Your task to perform on an android device: change the clock display to show seconds Image 0: 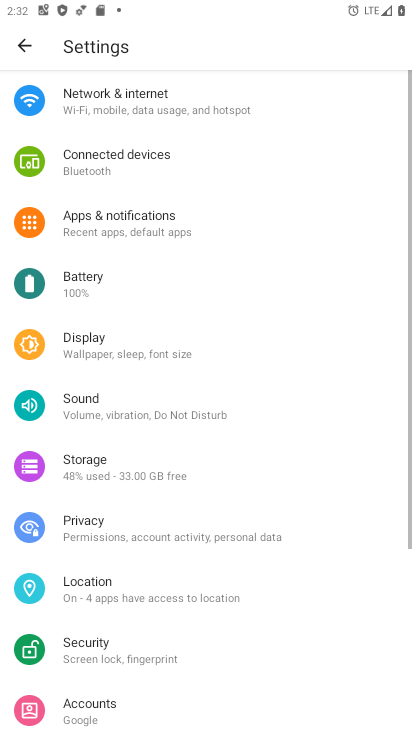
Step 0: press home button
Your task to perform on an android device: change the clock display to show seconds Image 1: 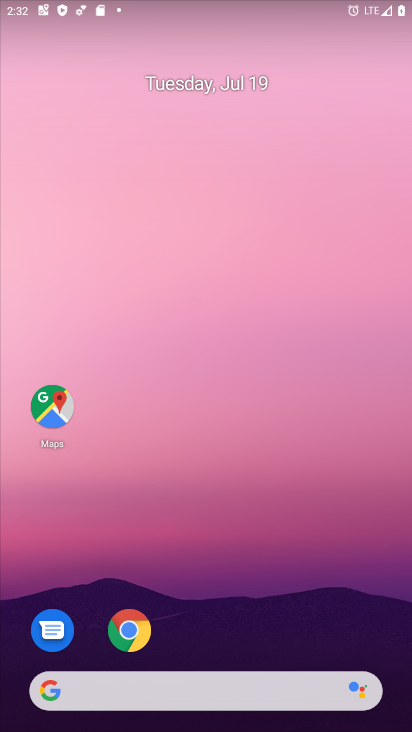
Step 1: drag from (204, 642) to (186, 71)
Your task to perform on an android device: change the clock display to show seconds Image 2: 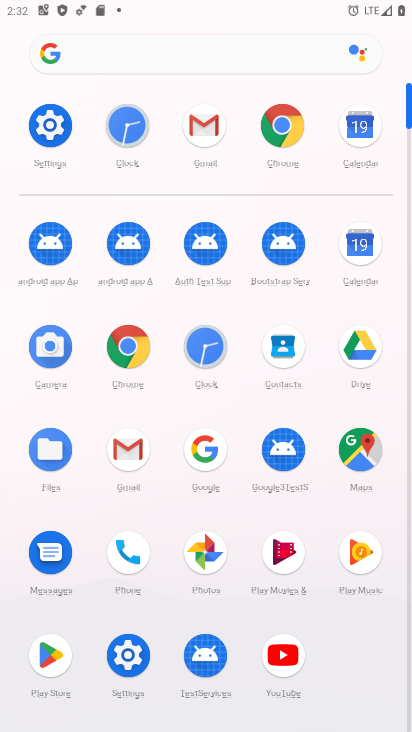
Step 2: click (203, 346)
Your task to perform on an android device: change the clock display to show seconds Image 3: 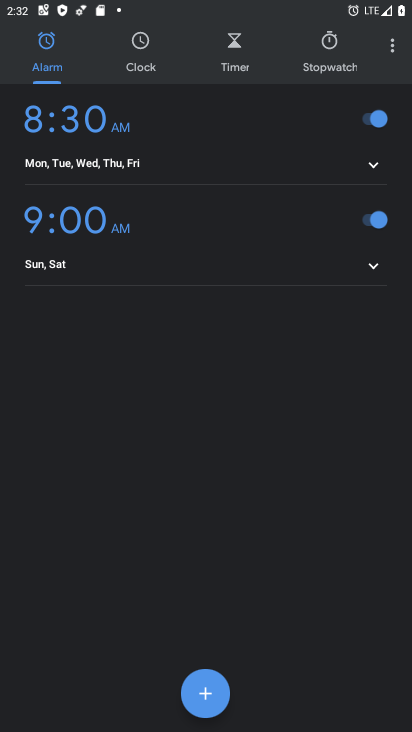
Step 3: click (395, 45)
Your task to perform on an android device: change the clock display to show seconds Image 4: 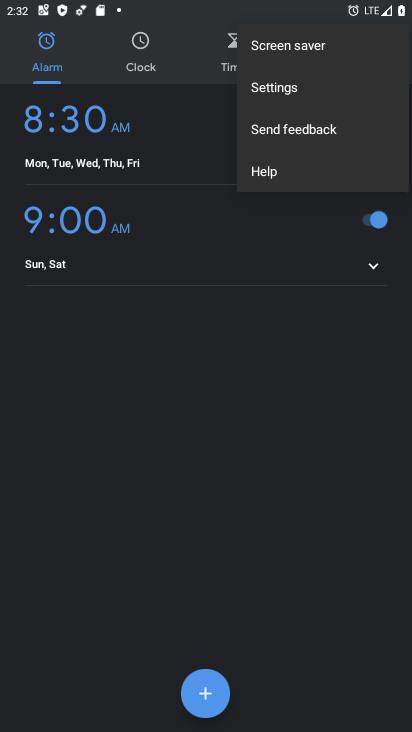
Step 4: click (302, 89)
Your task to perform on an android device: change the clock display to show seconds Image 5: 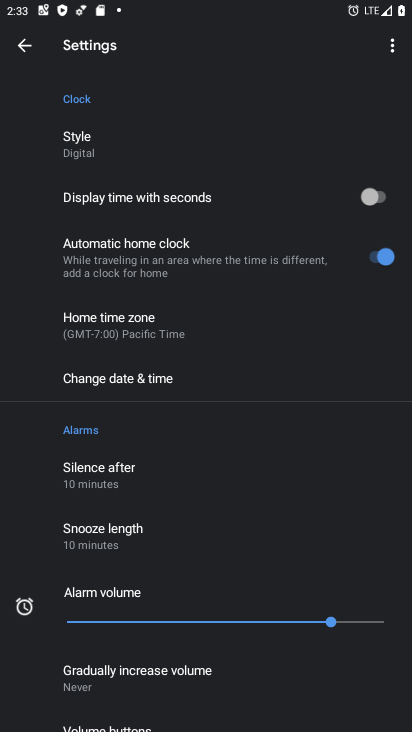
Step 5: click (370, 197)
Your task to perform on an android device: change the clock display to show seconds Image 6: 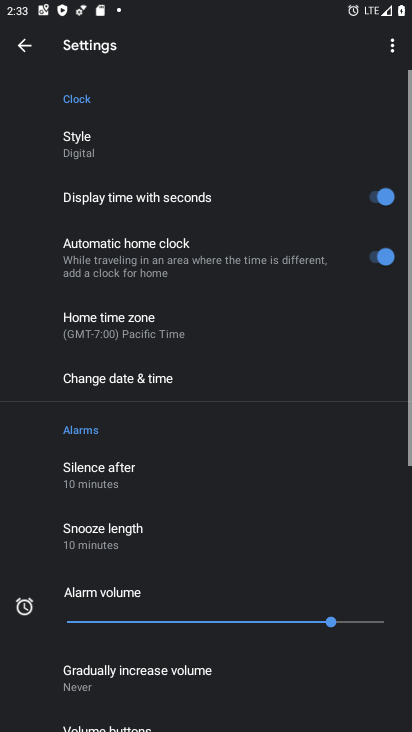
Step 6: task complete